Your task to perform on an android device: install app "eBay: The shopping marketplace" Image 0: 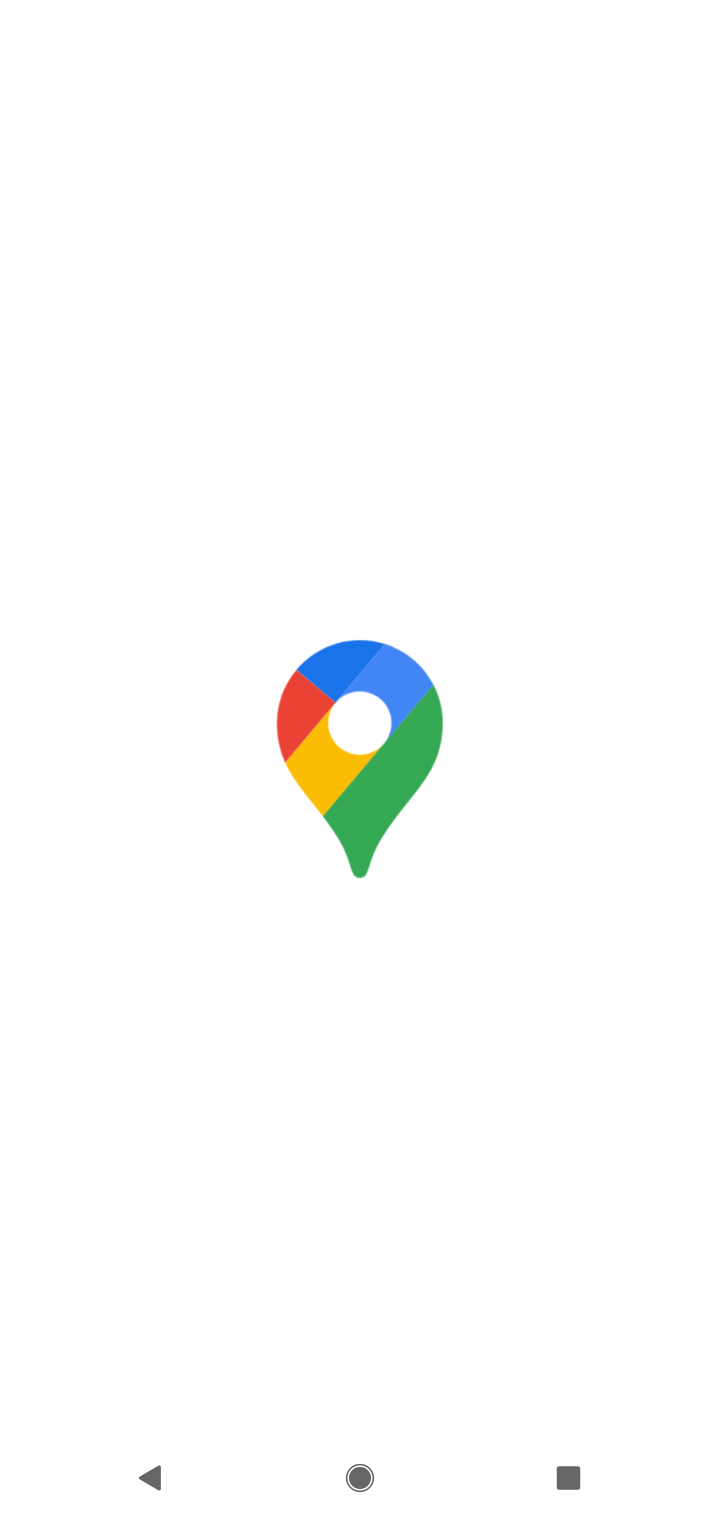
Step 0: press home button
Your task to perform on an android device: install app "eBay: The shopping marketplace" Image 1: 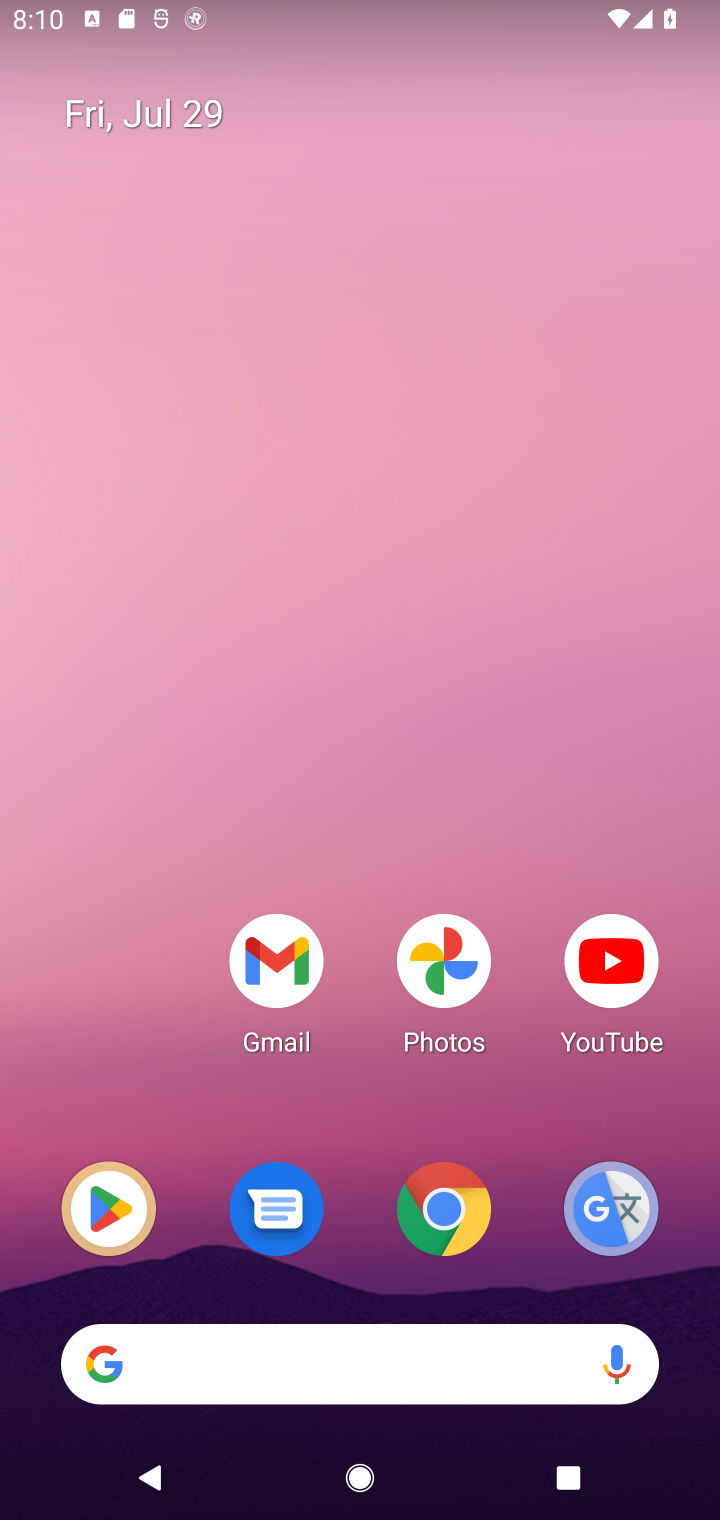
Step 1: click (113, 1209)
Your task to perform on an android device: install app "eBay: The shopping marketplace" Image 2: 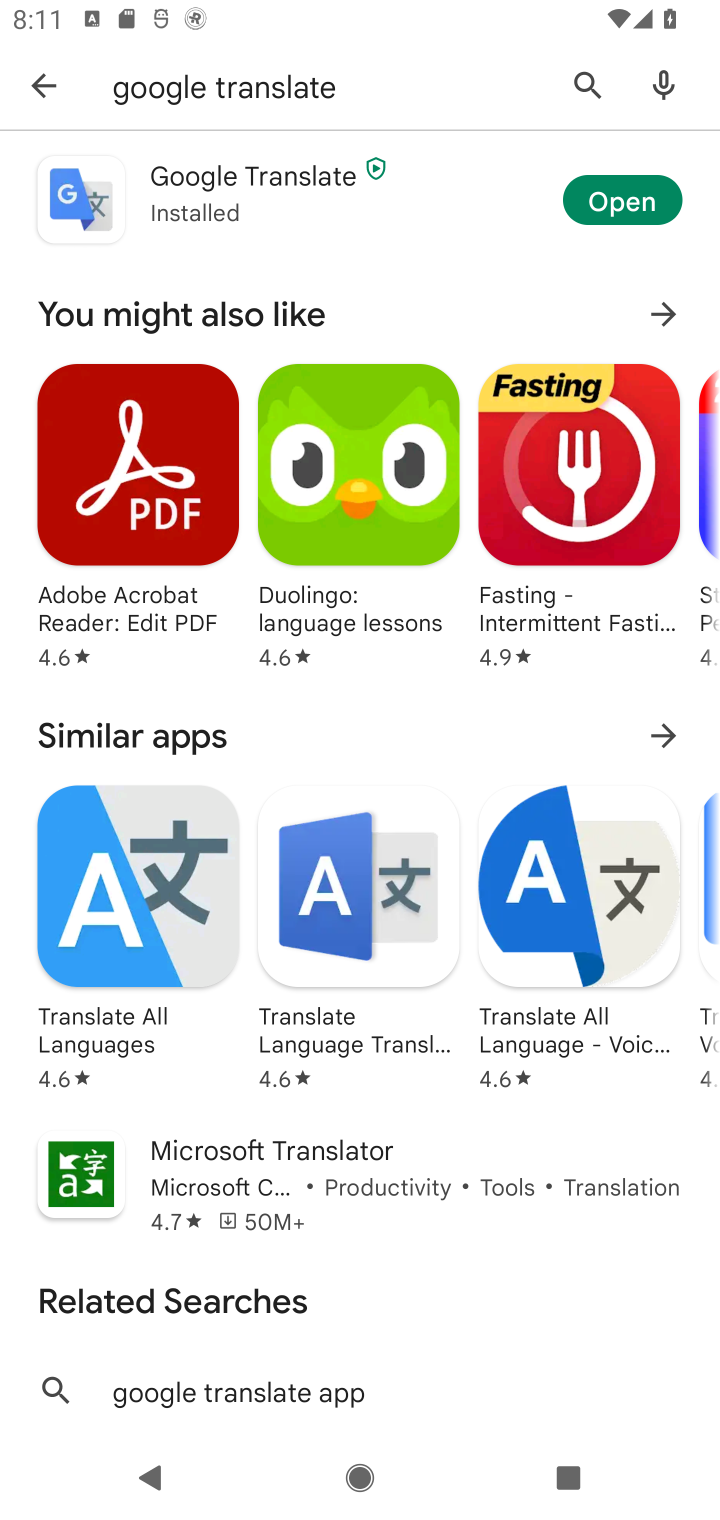
Step 2: click (598, 77)
Your task to perform on an android device: install app "eBay: The shopping marketplace" Image 3: 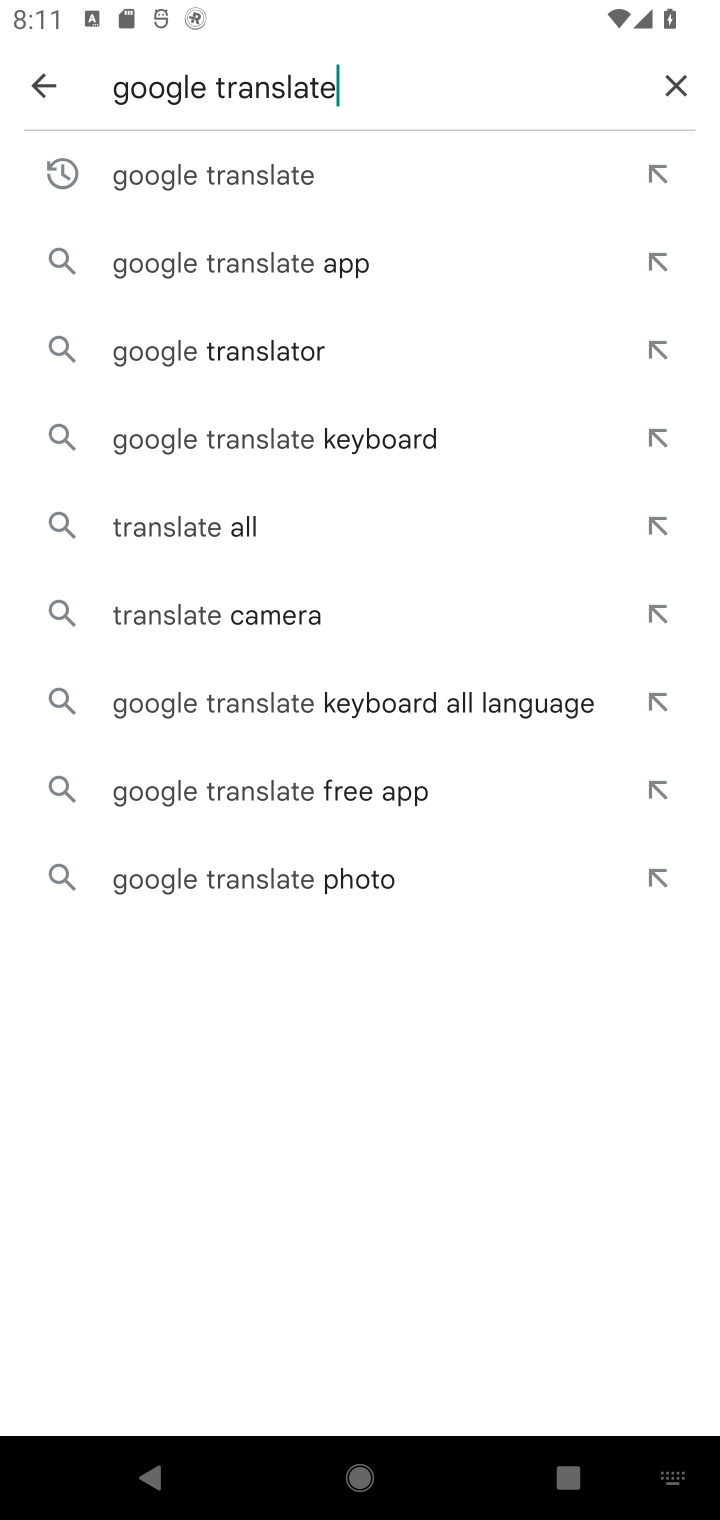
Step 3: click (662, 90)
Your task to perform on an android device: install app "eBay: The shopping marketplace" Image 4: 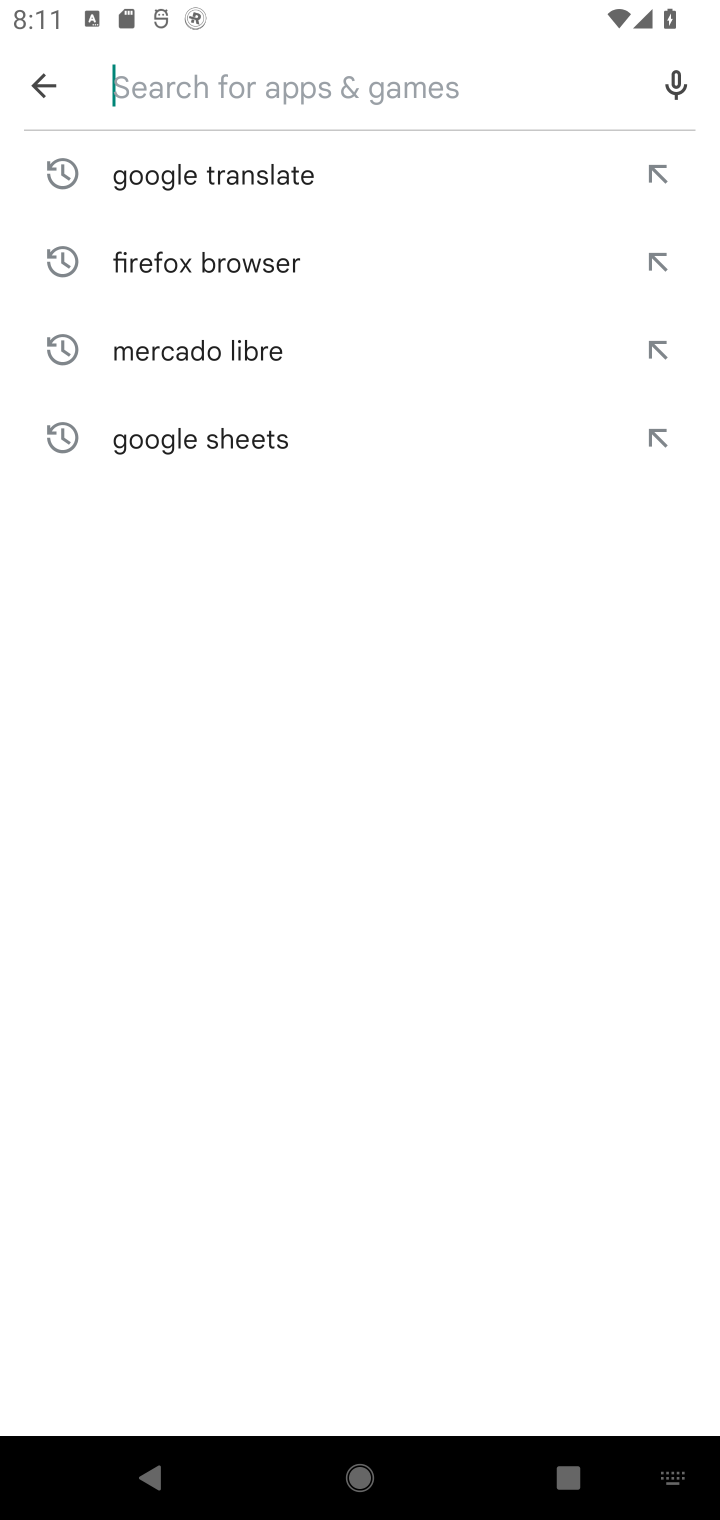
Step 4: type "eBay: The shopping marketplace"
Your task to perform on an android device: install app "eBay: The shopping marketplace" Image 5: 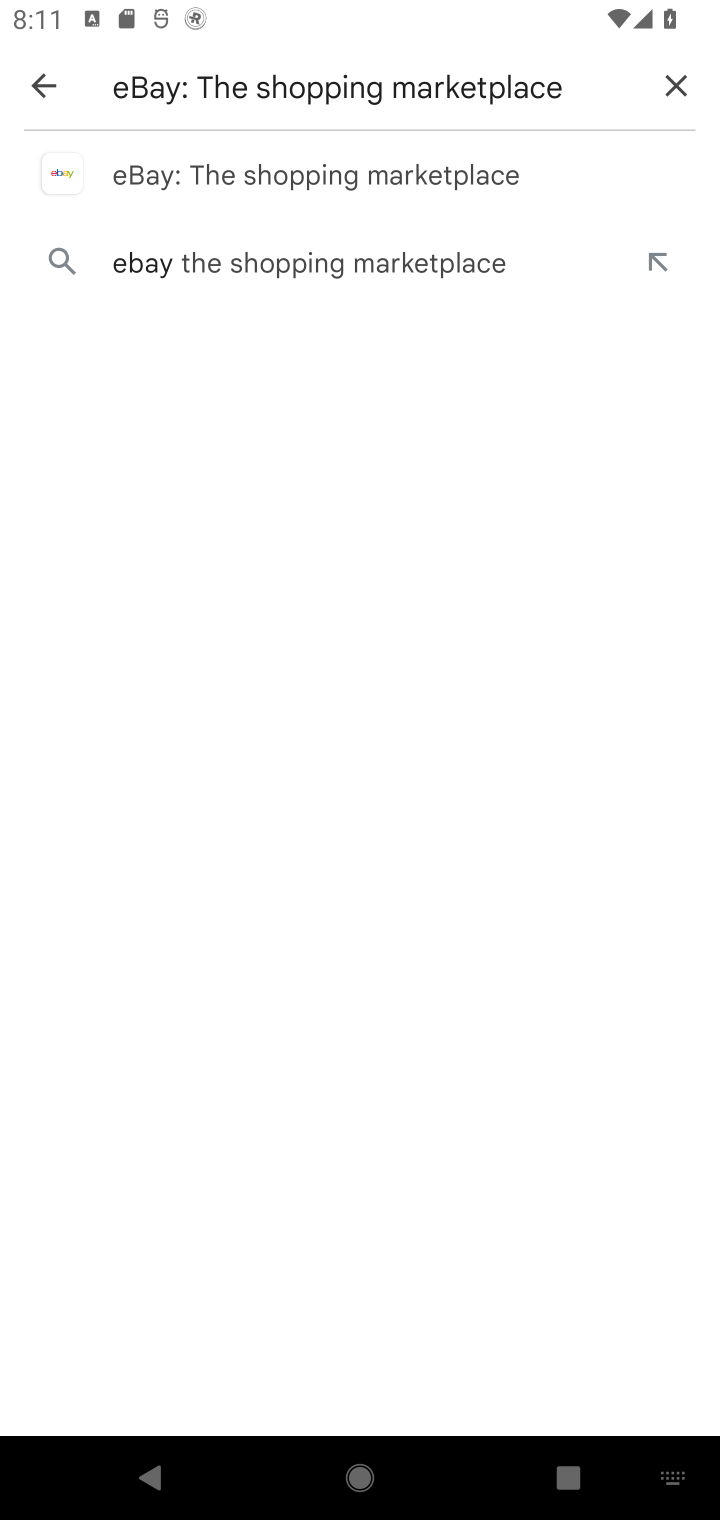
Step 5: click (459, 184)
Your task to perform on an android device: install app "eBay: The shopping marketplace" Image 6: 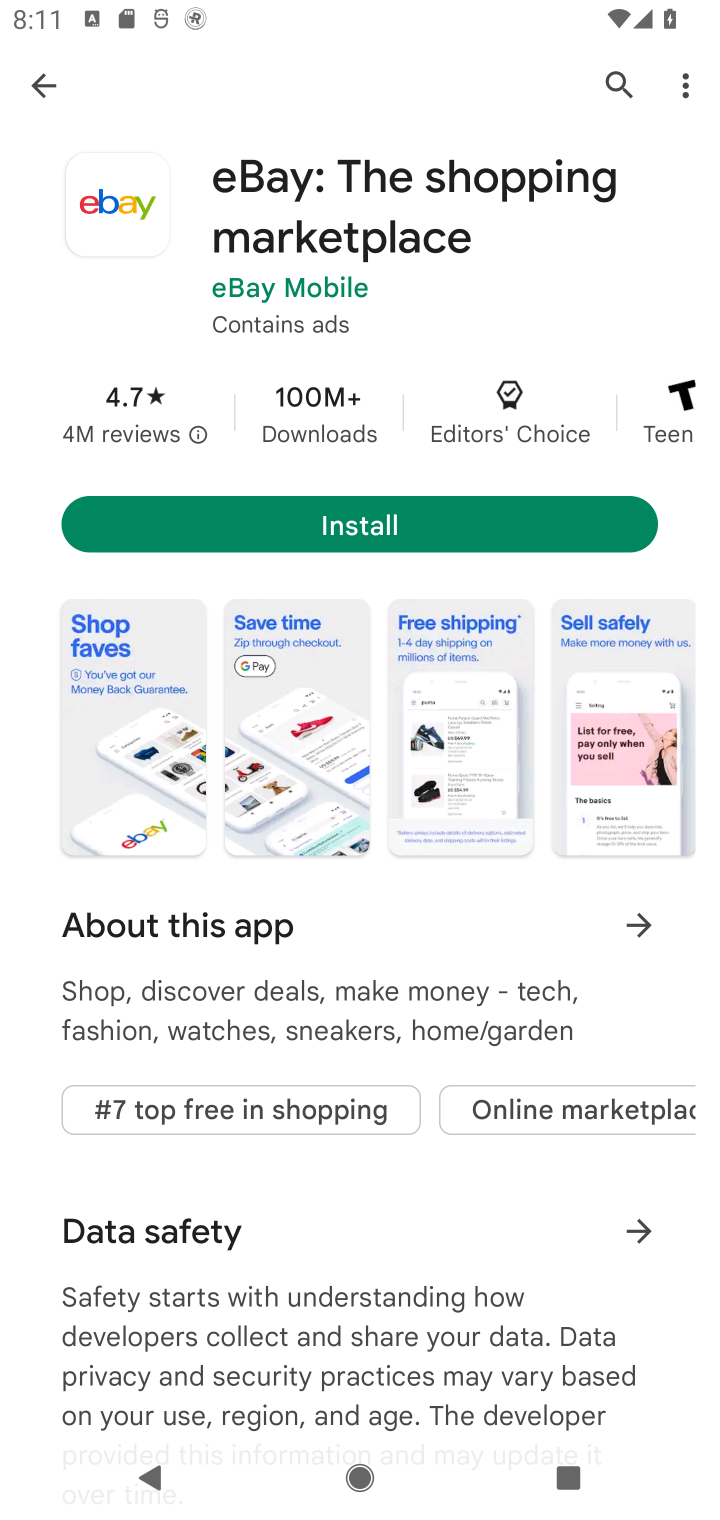
Step 6: click (330, 535)
Your task to perform on an android device: install app "eBay: The shopping marketplace" Image 7: 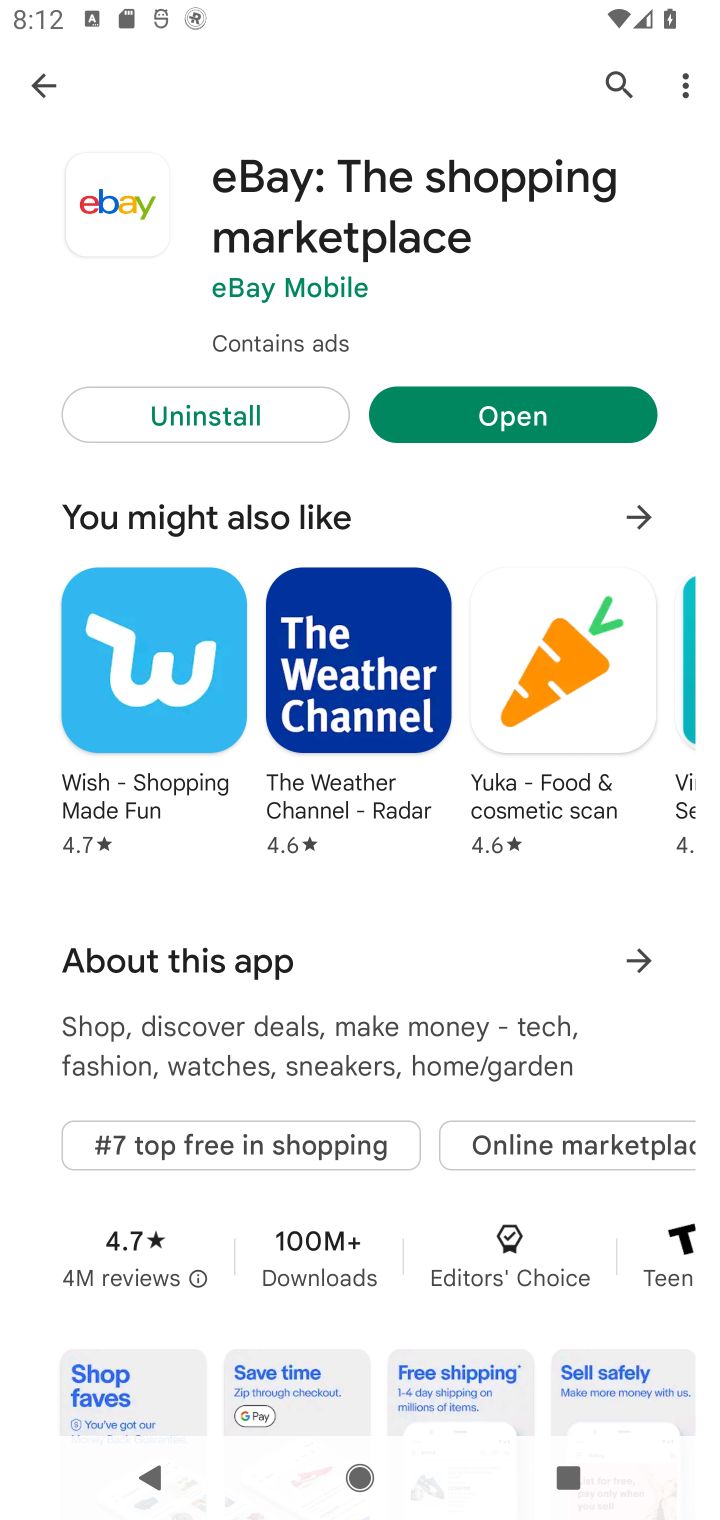
Step 7: task complete